Your task to perform on an android device: Open Maps and search for coffee Image 0: 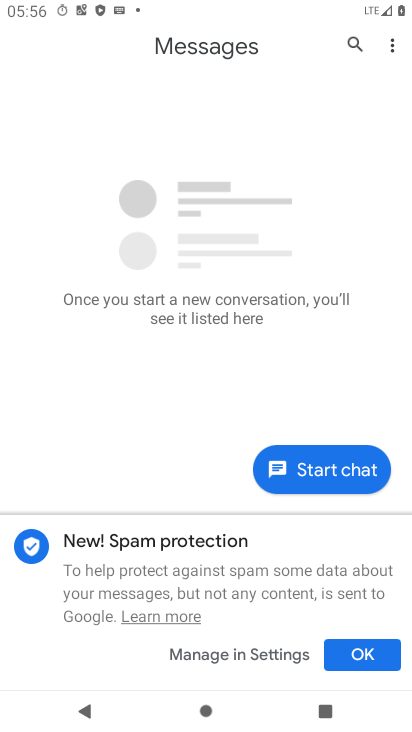
Step 0: press home button
Your task to perform on an android device: Open Maps and search for coffee Image 1: 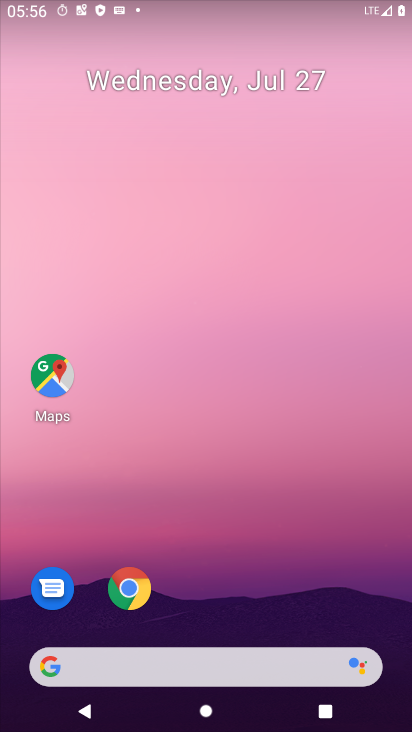
Step 1: drag from (287, 652) to (327, 1)
Your task to perform on an android device: Open Maps and search for coffee Image 2: 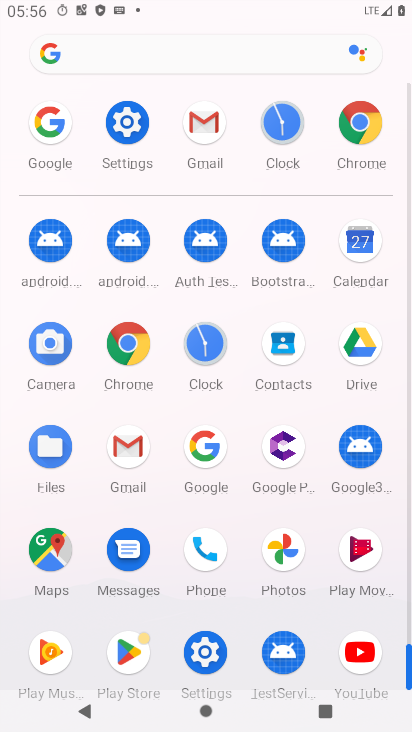
Step 2: click (44, 542)
Your task to perform on an android device: Open Maps and search for coffee Image 3: 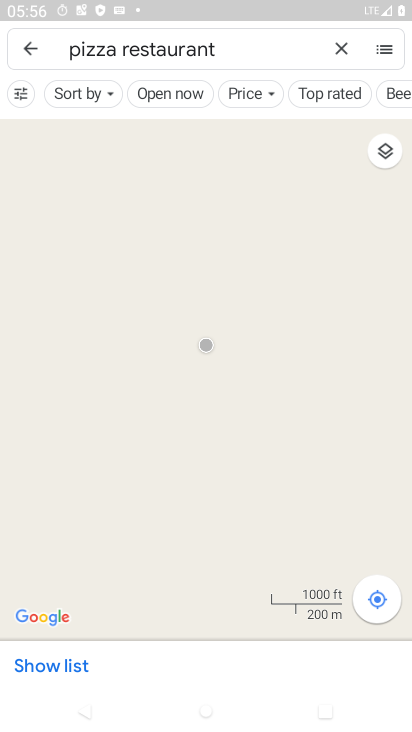
Step 3: click (338, 46)
Your task to perform on an android device: Open Maps and search for coffee Image 4: 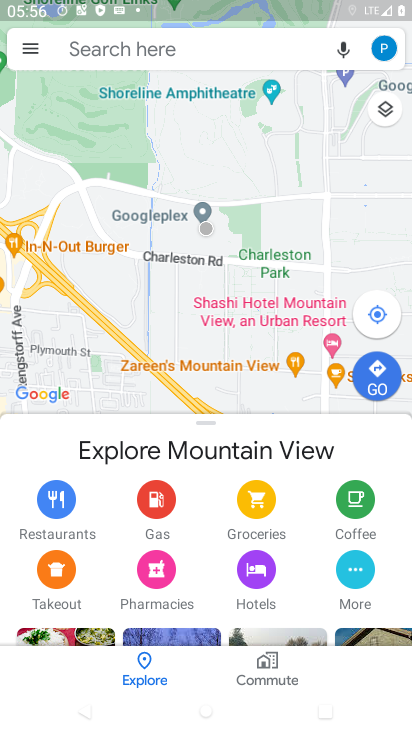
Step 4: click (296, 43)
Your task to perform on an android device: Open Maps and search for coffee Image 5: 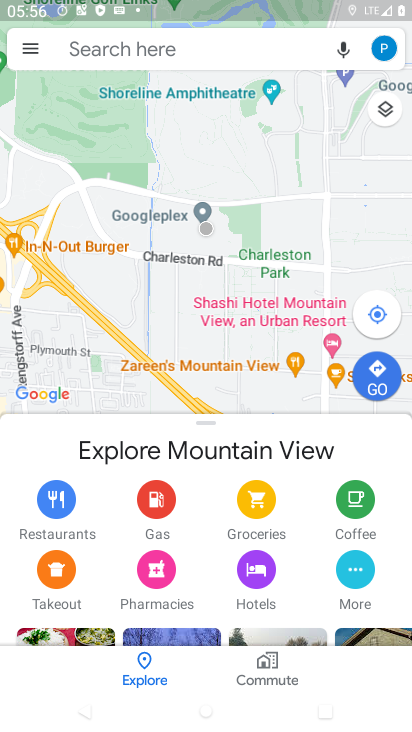
Step 5: click (296, 43)
Your task to perform on an android device: Open Maps and search for coffee Image 6: 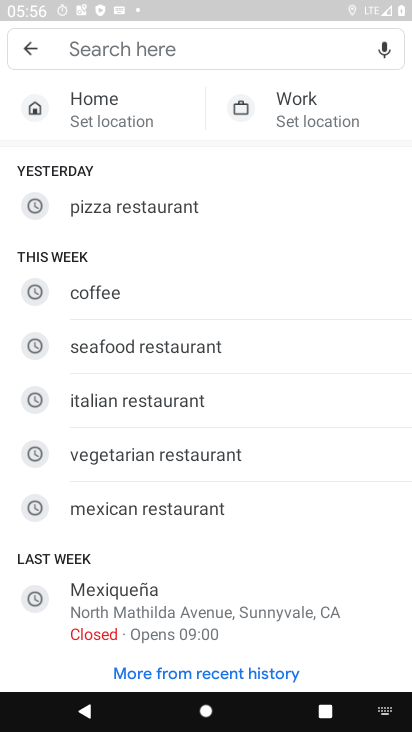
Step 6: click (213, 49)
Your task to perform on an android device: Open Maps and search for coffee Image 7: 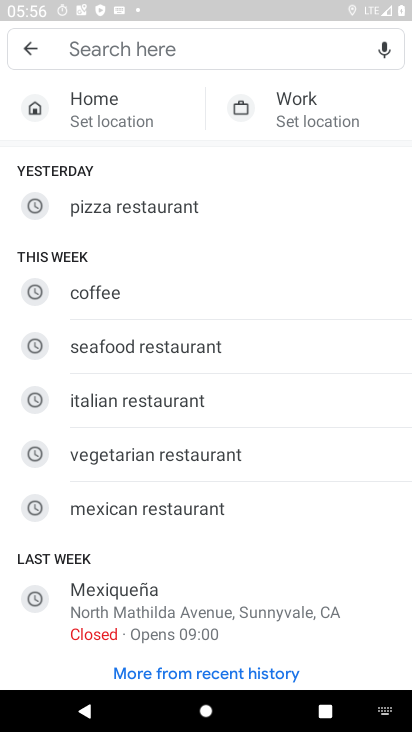
Step 7: click (127, 286)
Your task to perform on an android device: Open Maps and search for coffee Image 8: 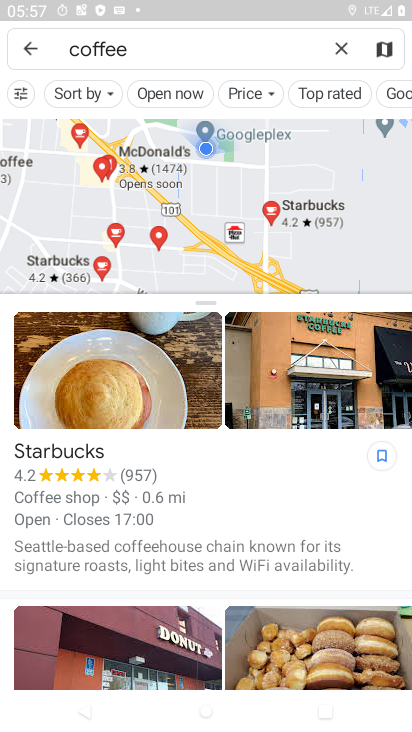
Step 8: task complete